Your task to perform on an android device: open app "Google Sheets" (install if not already installed) Image 0: 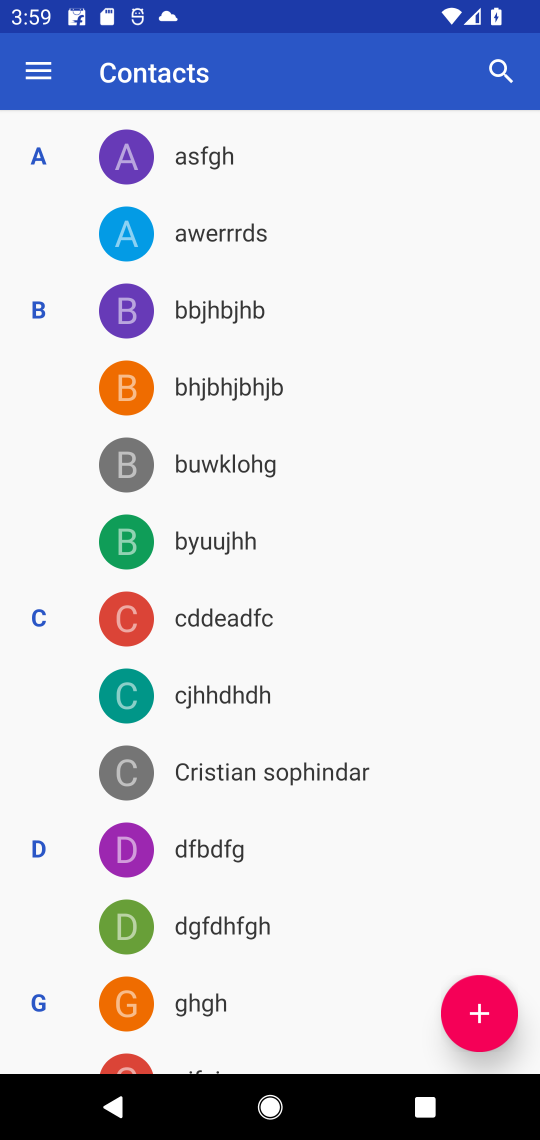
Step 0: press home button
Your task to perform on an android device: open app "Google Sheets" (install if not already installed) Image 1: 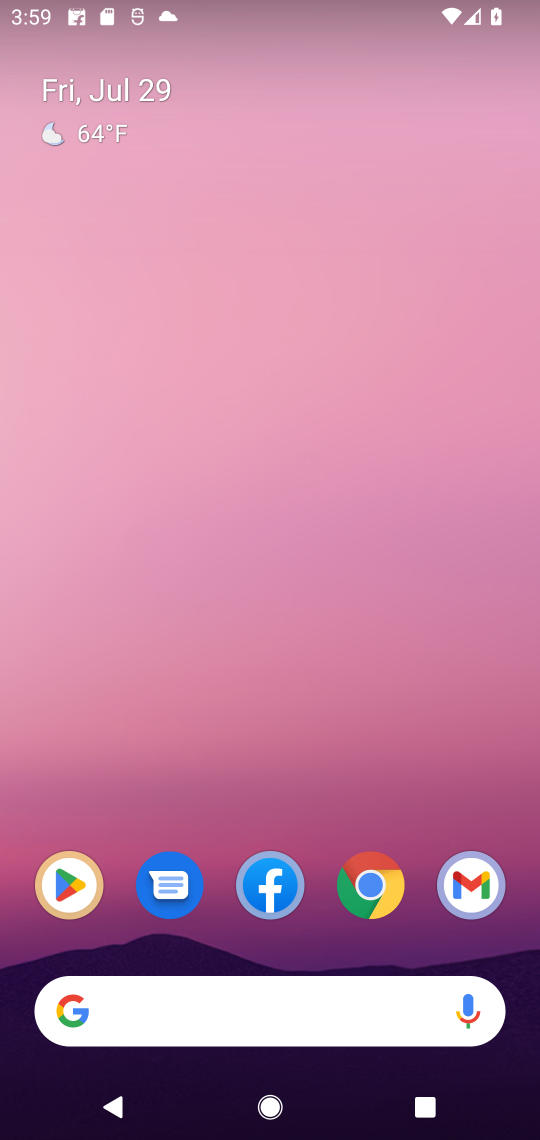
Step 1: click (87, 873)
Your task to perform on an android device: open app "Google Sheets" (install if not already installed) Image 2: 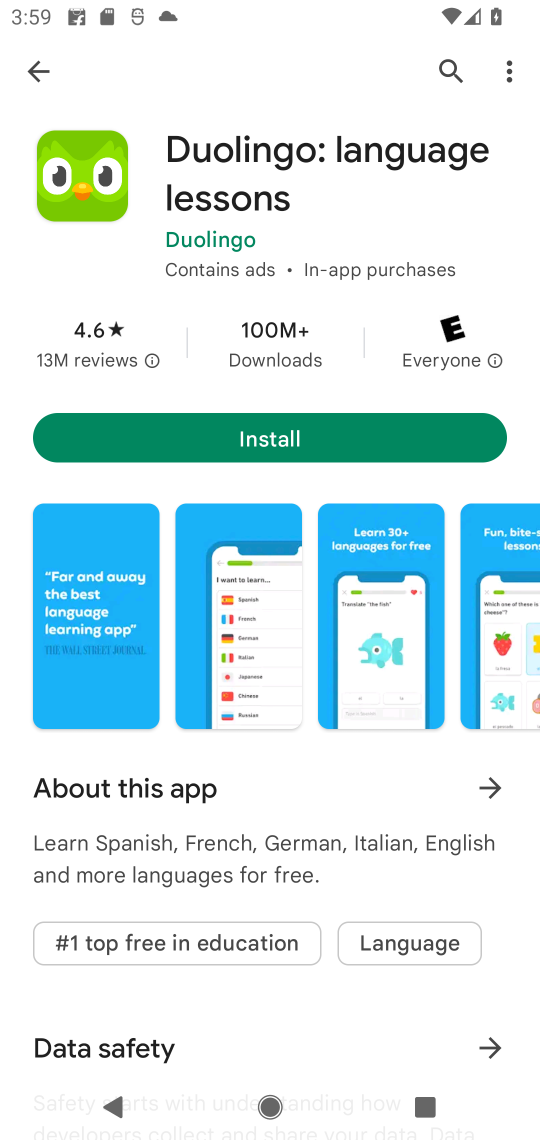
Step 2: click (449, 77)
Your task to perform on an android device: open app "Google Sheets" (install if not already installed) Image 3: 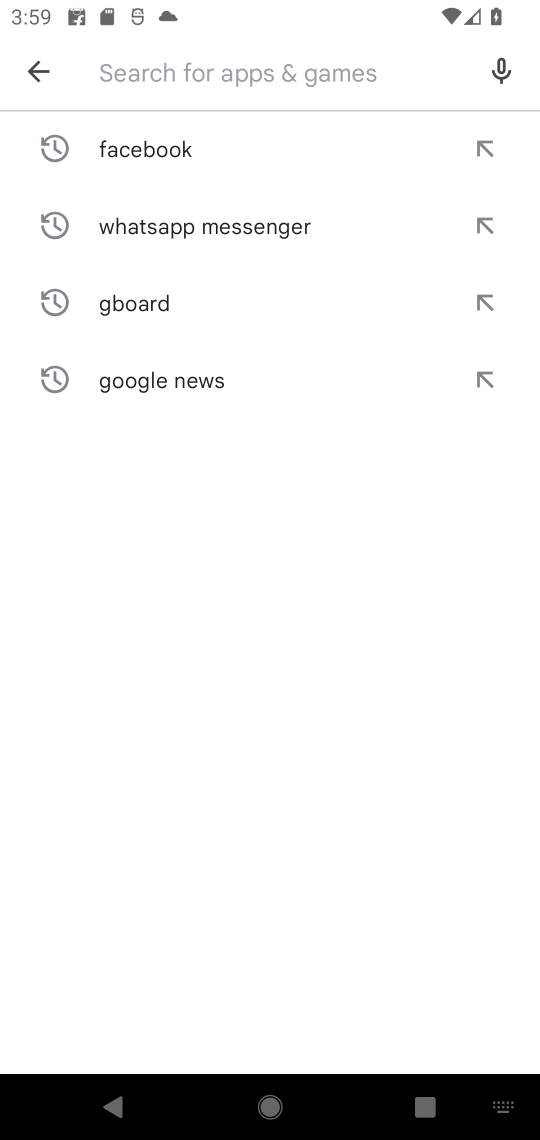
Step 3: type "Google Sheets"
Your task to perform on an android device: open app "Google Sheets" (install if not already installed) Image 4: 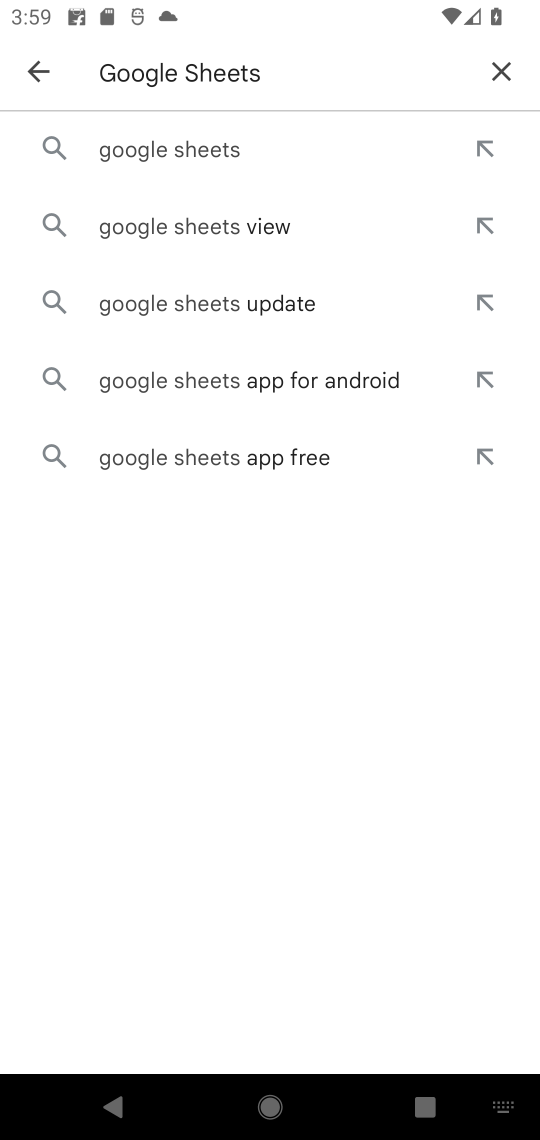
Step 4: click (206, 155)
Your task to perform on an android device: open app "Google Sheets" (install if not already installed) Image 5: 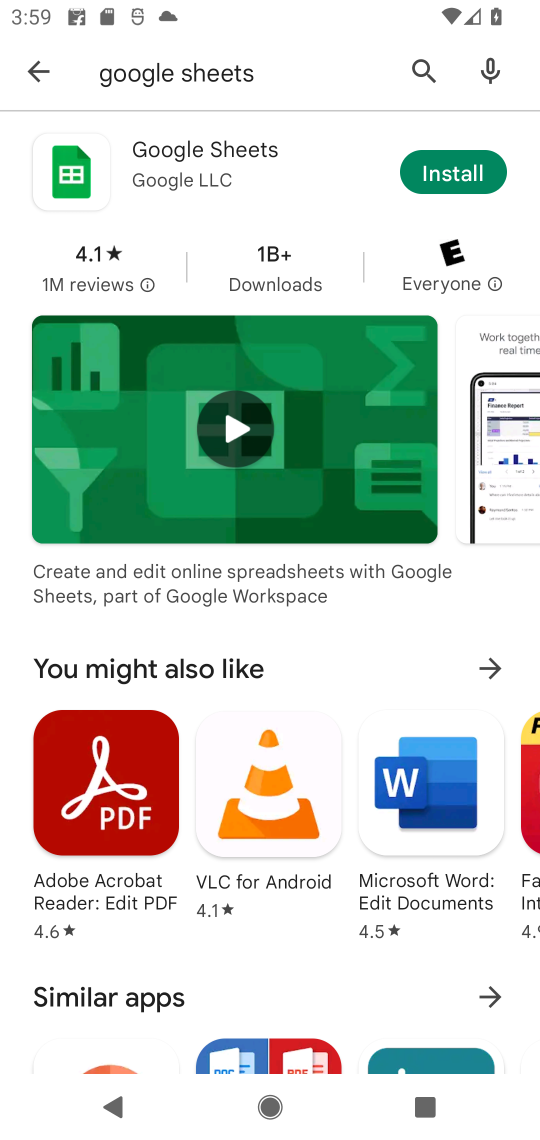
Step 5: click (458, 171)
Your task to perform on an android device: open app "Google Sheets" (install if not already installed) Image 6: 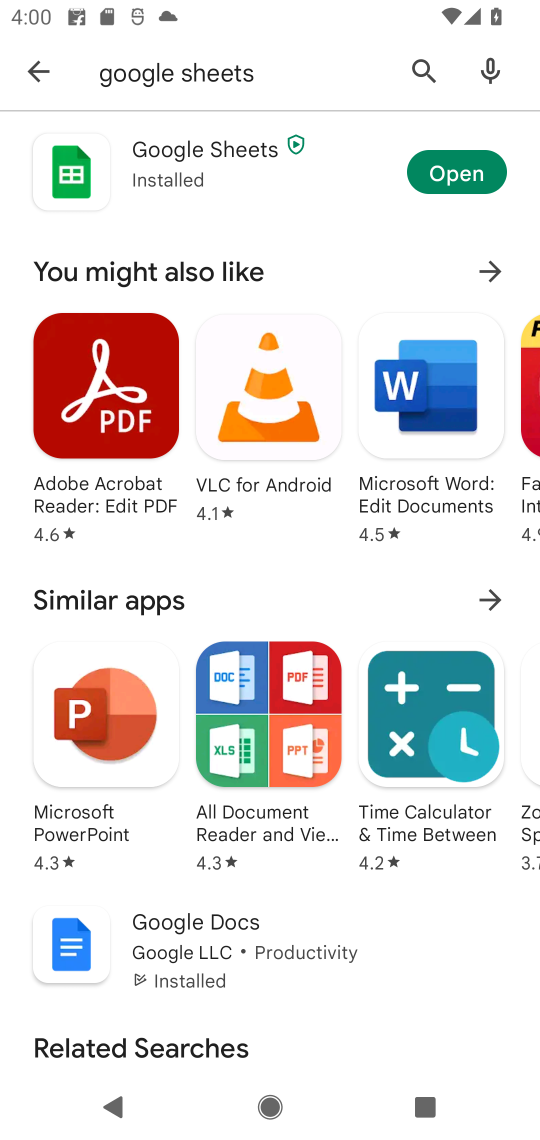
Step 6: click (434, 174)
Your task to perform on an android device: open app "Google Sheets" (install if not already installed) Image 7: 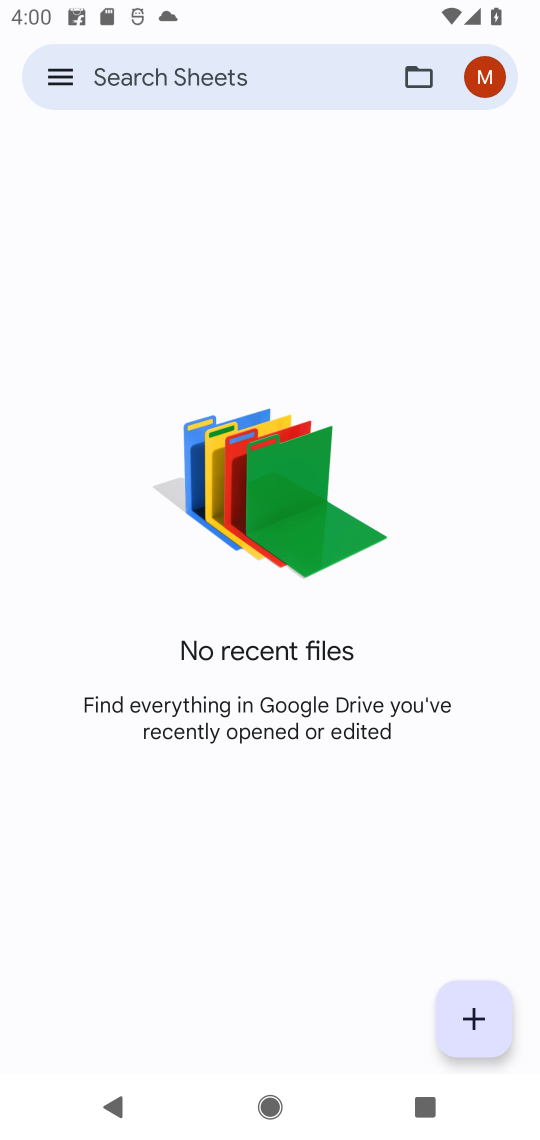
Step 7: task complete